Your task to perform on an android device: open a new tab in the chrome app Image 0: 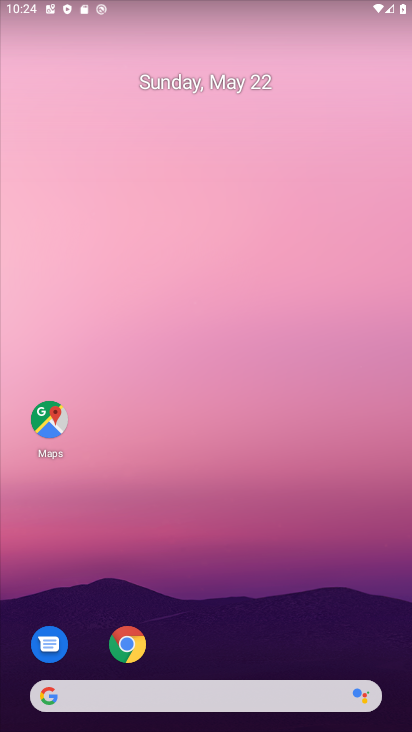
Step 0: drag from (224, 673) to (255, 386)
Your task to perform on an android device: open a new tab in the chrome app Image 1: 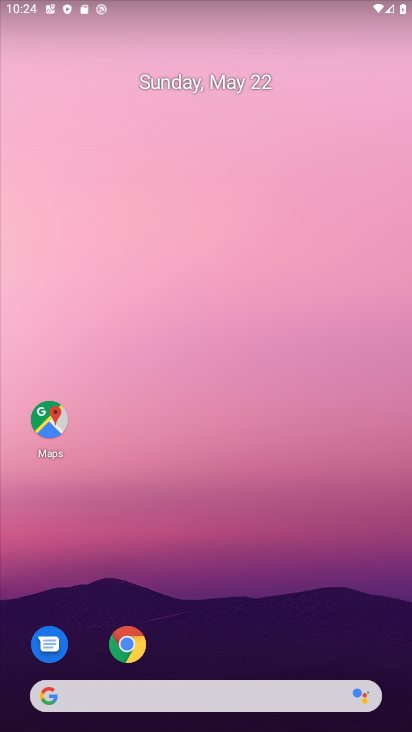
Step 1: drag from (185, 707) to (227, 321)
Your task to perform on an android device: open a new tab in the chrome app Image 2: 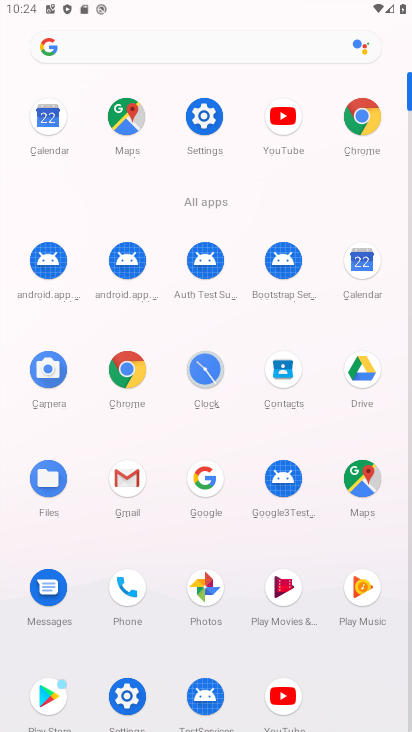
Step 2: click (368, 117)
Your task to perform on an android device: open a new tab in the chrome app Image 3: 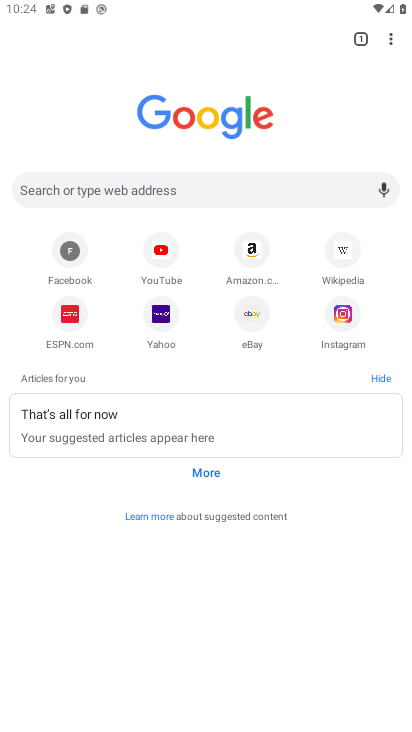
Step 3: click (392, 36)
Your task to perform on an android device: open a new tab in the chrome app Image 4: 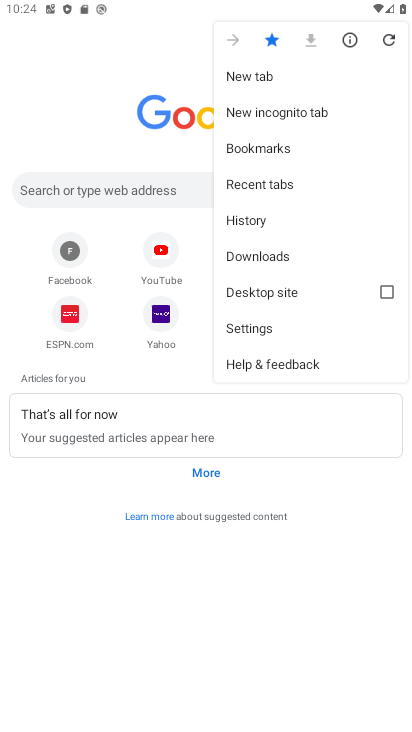
Step 4: click (254, 73)
Your task to perform on an android device: open a new tab in the chrome app Image 5: 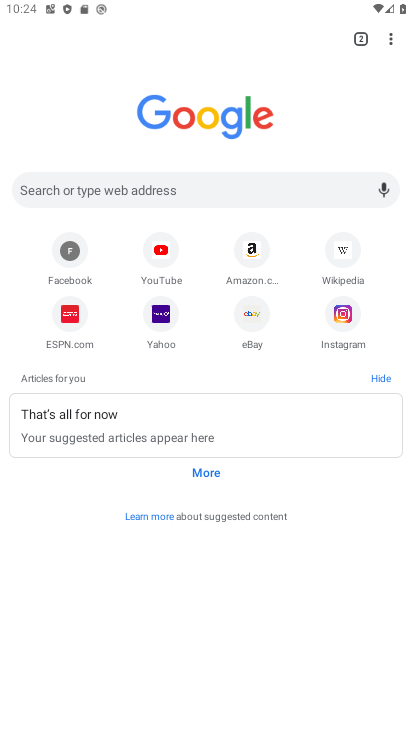
Step 5: task complete